Your task to perform on an android device: What's the weather today? Image 0: 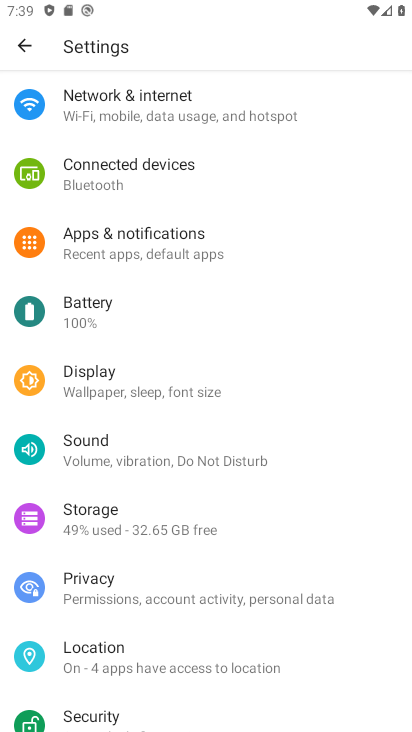
Step 0: press home button
Your task to perform on an android device: What's the weather today? Image 1: 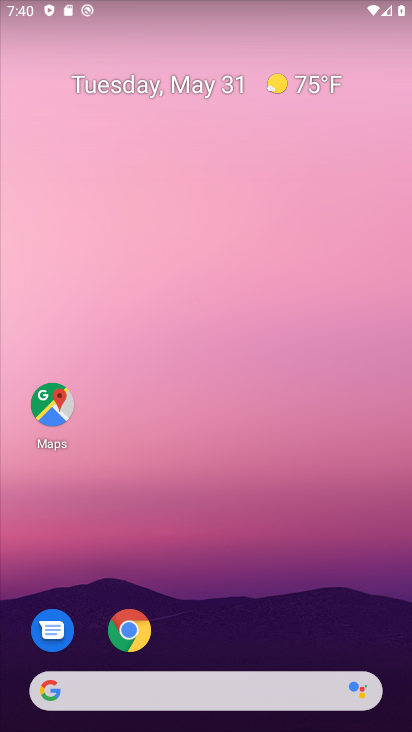
Step 1: drag from (171, 541) to (152, 238)
Your task to perform on an android device: What's the weather today? Image 2: 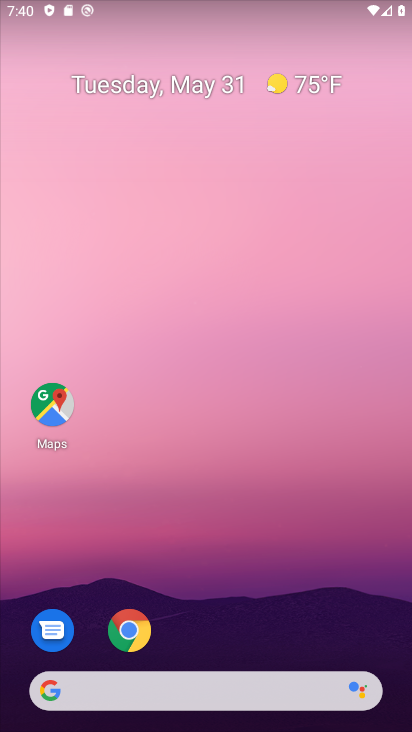
Step 2: drag from (218, 651) to (185, 216)
Your task to perform on an android device: What's the weather today? Image 3: 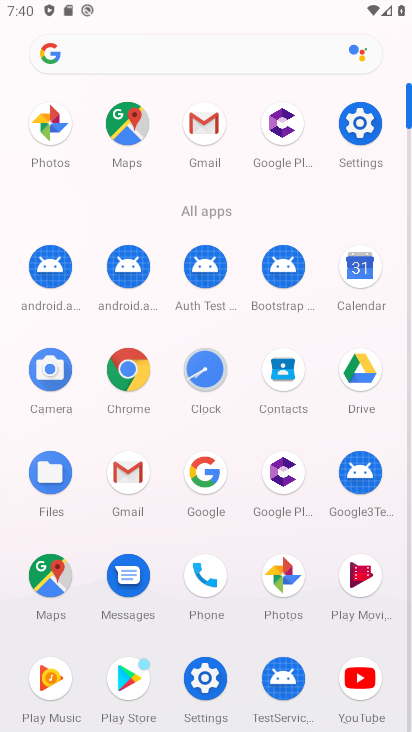
Step 3: click (209, 486)
Your task to perform on an android device: What's the weather today? Image 4: 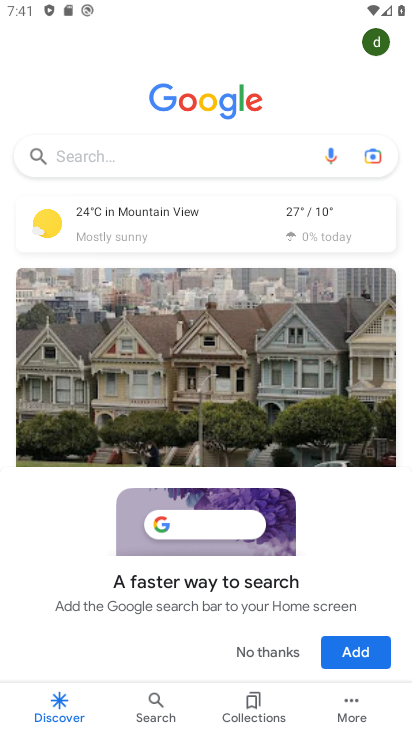
Step 4: click (188, 162)
Your task to perform on an android device: What's the weather today? Image 5: 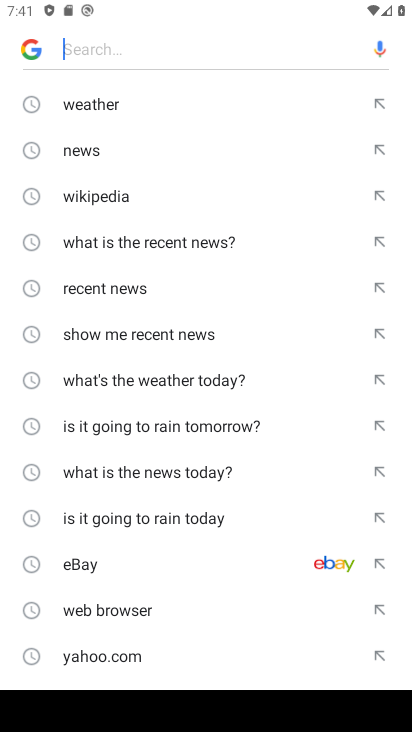
Step 5: click (176, 112)
Your task to perform on an android device: What's the weather today? Image 6: 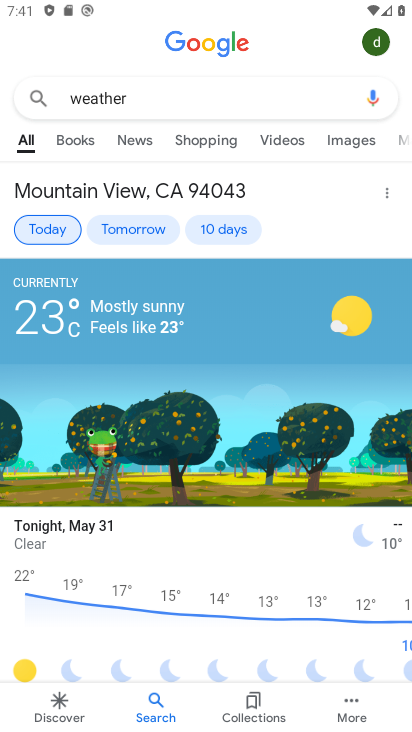
Step 6: task complete